Your task to perform on an android device: Search for the best way to get rid of a cold Image 0: 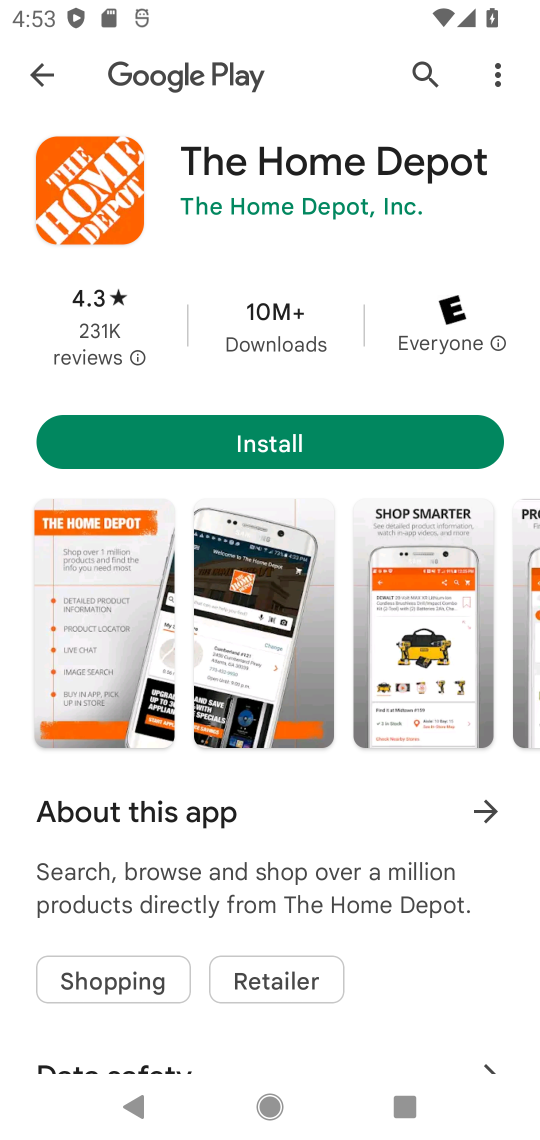
Step 0: press home button
Your task to perform on an android device: Search for the best way to get rid of a cold Image 1: 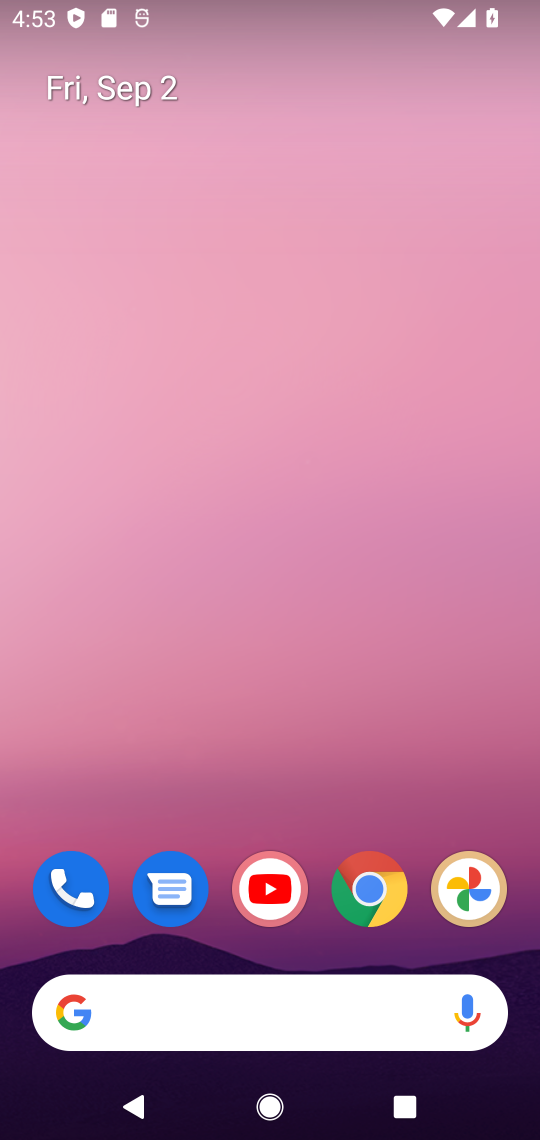
Step 1: click (366, 917)
Your task to perform on an android device: Search for the best way to get rid of a cold Image 2: 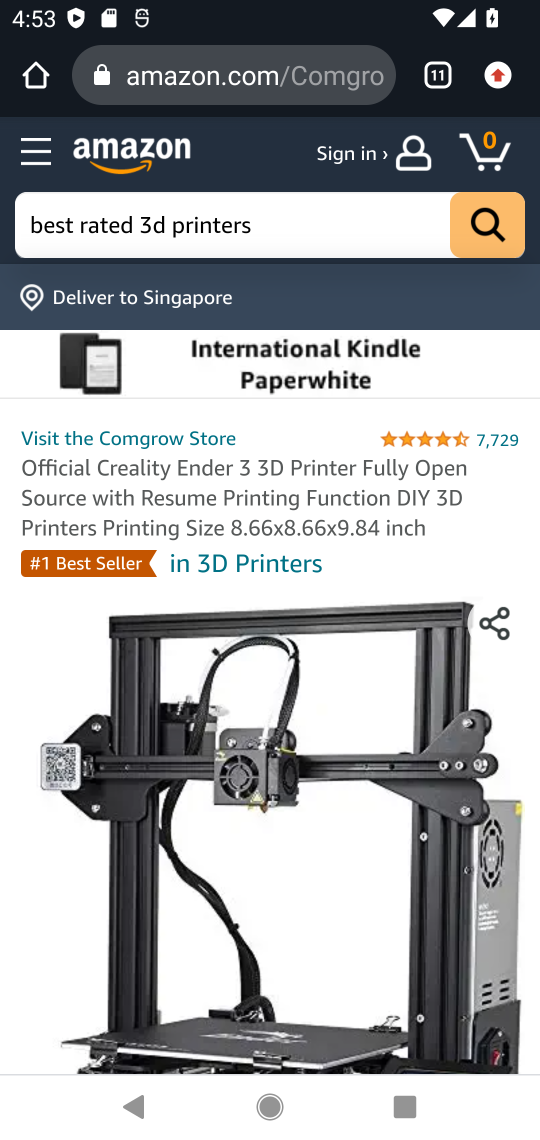
Step 2: click (431, 62)
Your task to perform on an android device: Search for the best way to get rid of a cold Image 3: 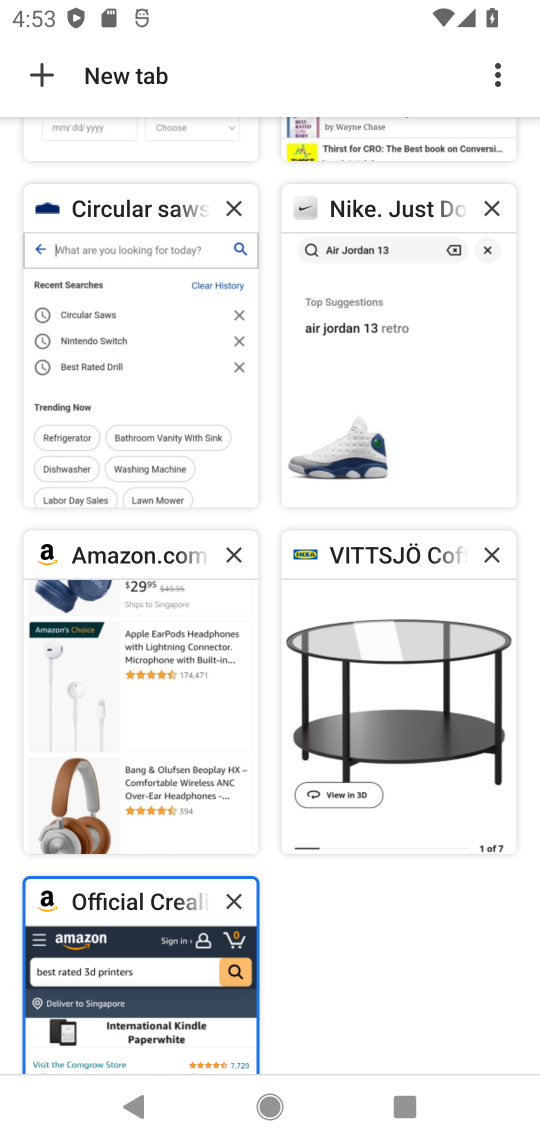
Step 3: click (41, 80)
Your task to perform on an android device: Search for the best way to get rid of a cold Image 4: 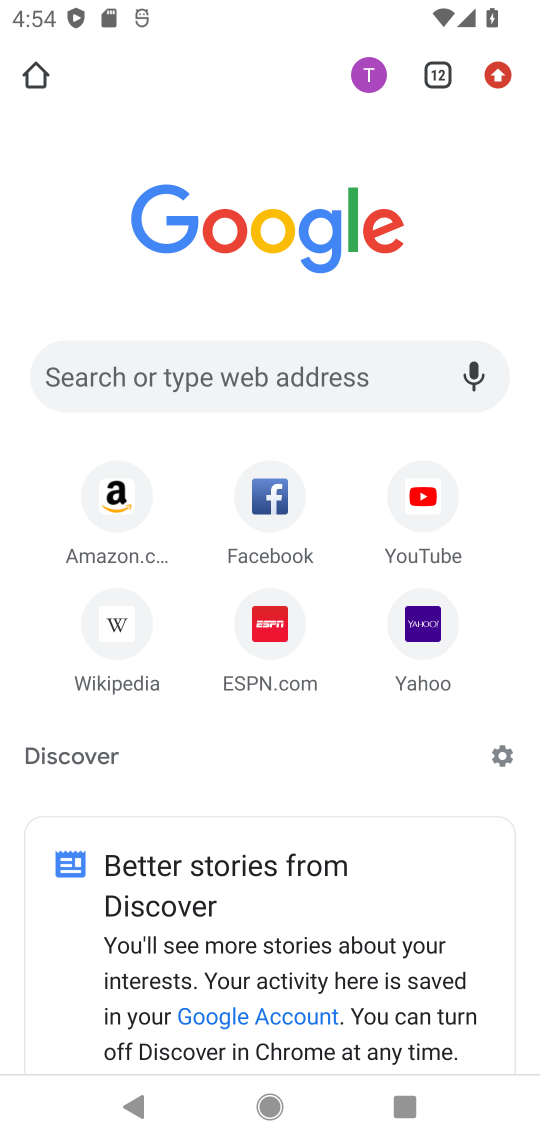
Step 4: click (281, 399)
Your task to perform on an android device: Search for the best way to get rid of a cold Image 5: 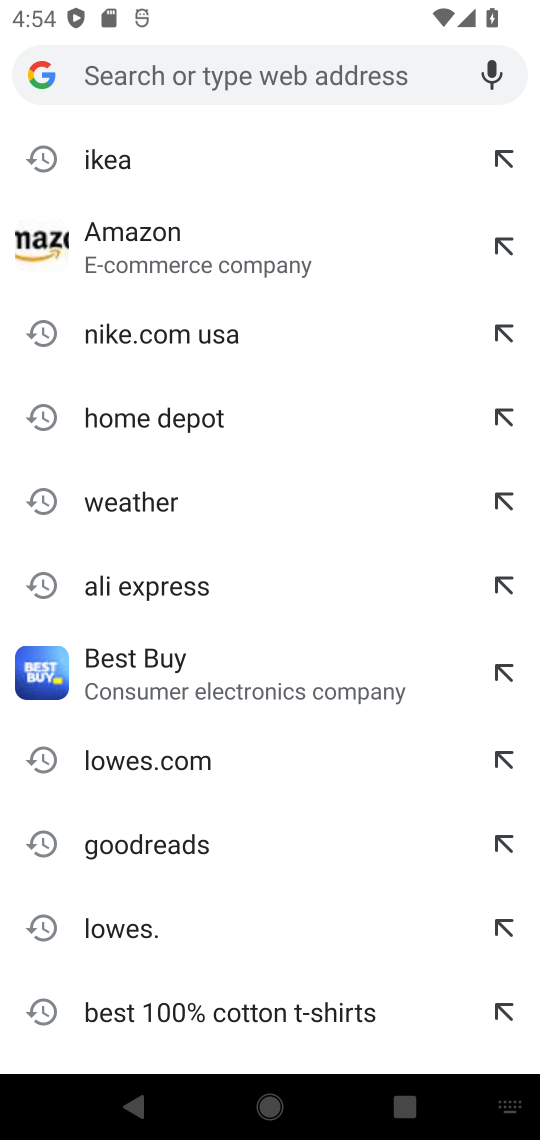
Step 5: type "the best way to get rid of a cold"
Your task to perform on an android device: Search for the best way to get rid of a cold Image 6: 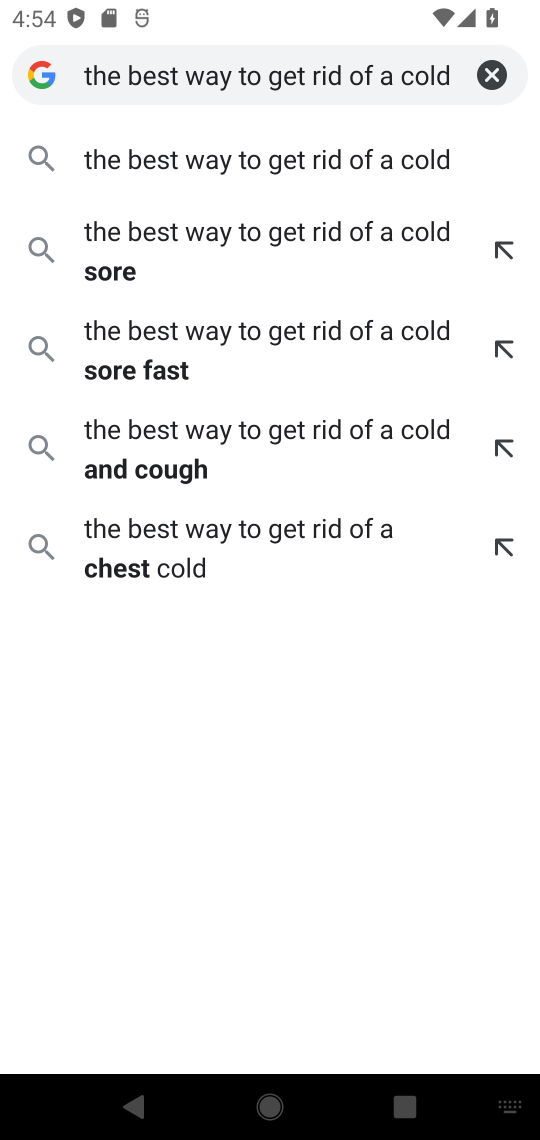
Step 6: click (243, 171)
Your task to perform on an android device: Search for the best way to get rid of a cold Image 7: 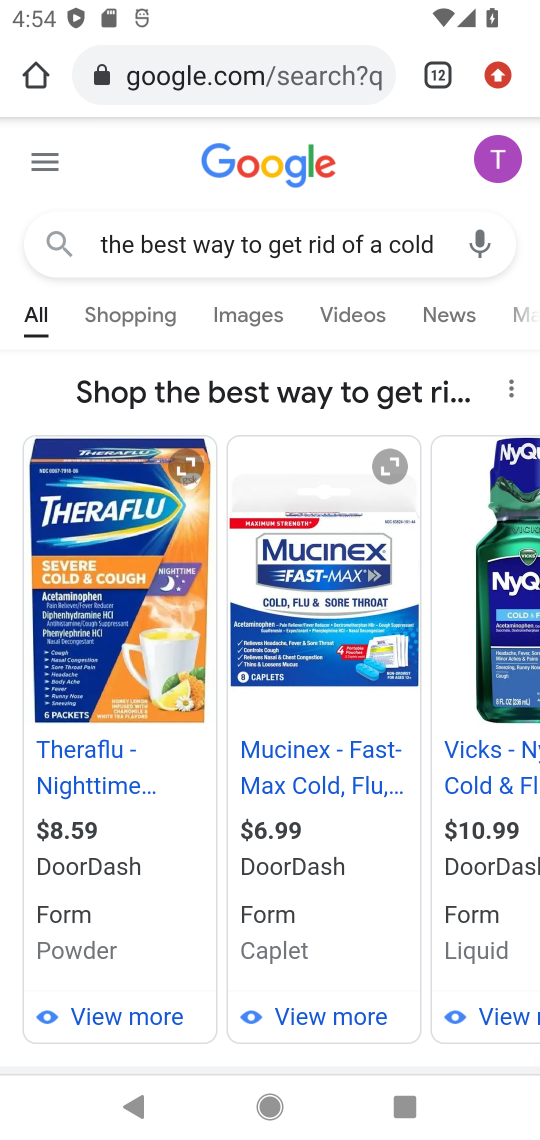
Step 7: drag from (230, 833) to (327, 192)
Your task to perform on an android device: Search for the best way to get rid of a cold Image 8: 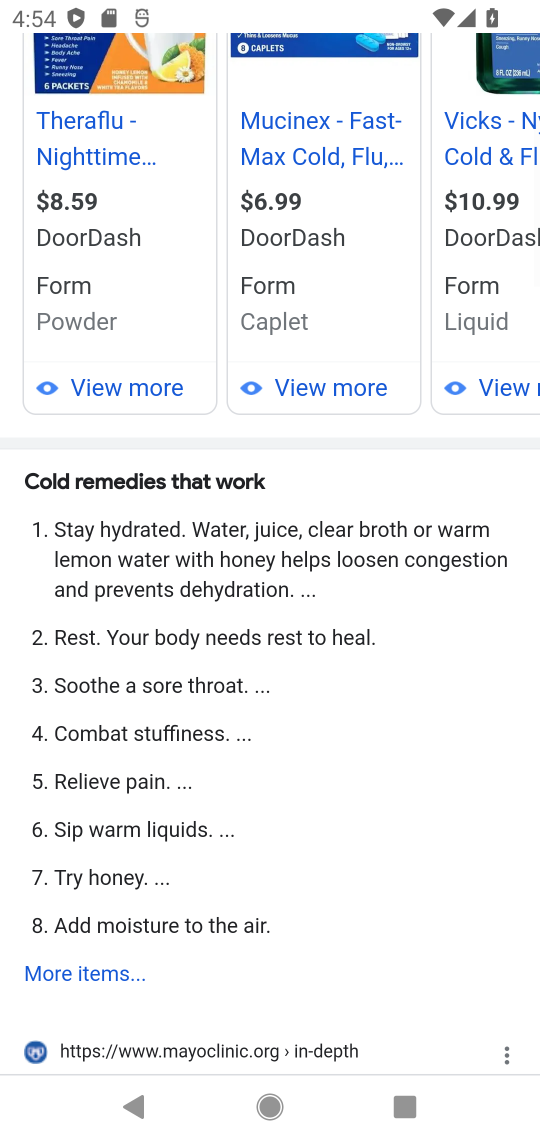
Step 8: click (350, 254)
Your task to perform on an android device: Search for the best way to get rid of a cold Image 9: 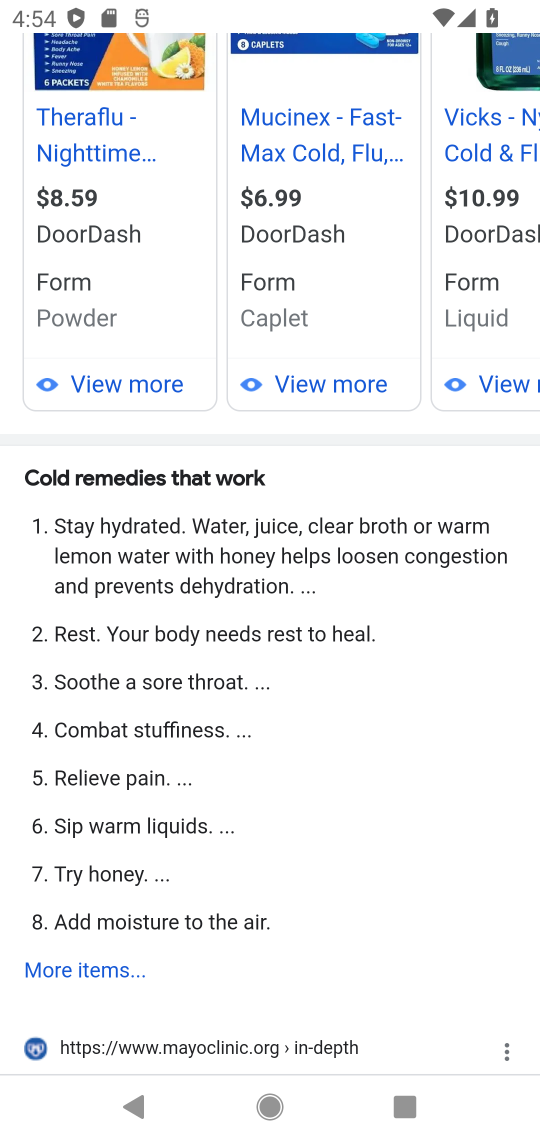
Step 9: task complete